Your task to perform on an android device: Find coffee shops on Maps Image 0: 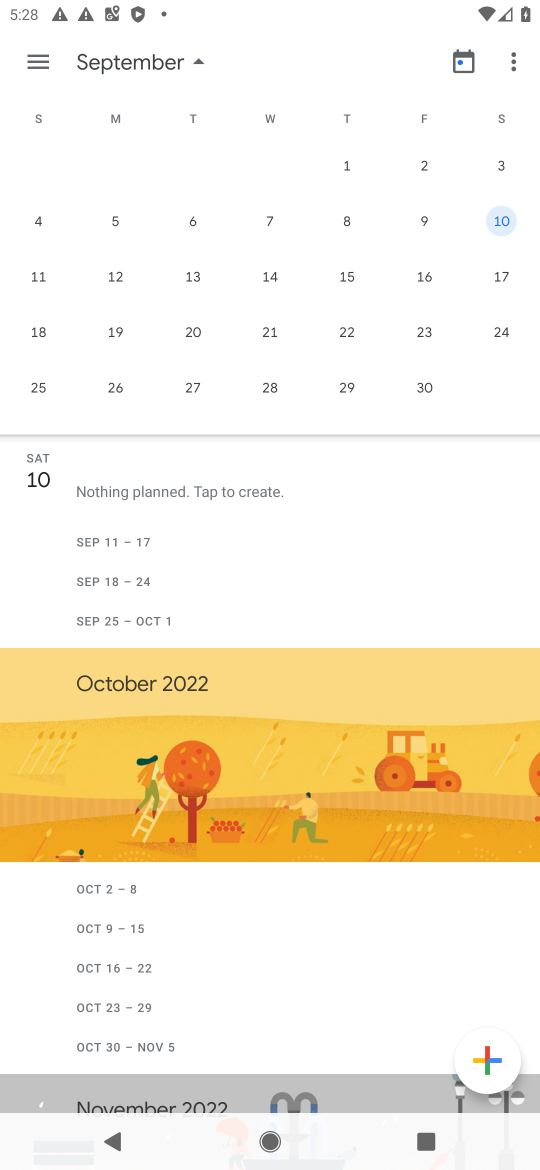
Step 0: press home button
Your task to perform on an android device: Find coffee shops on Maps Image 1: 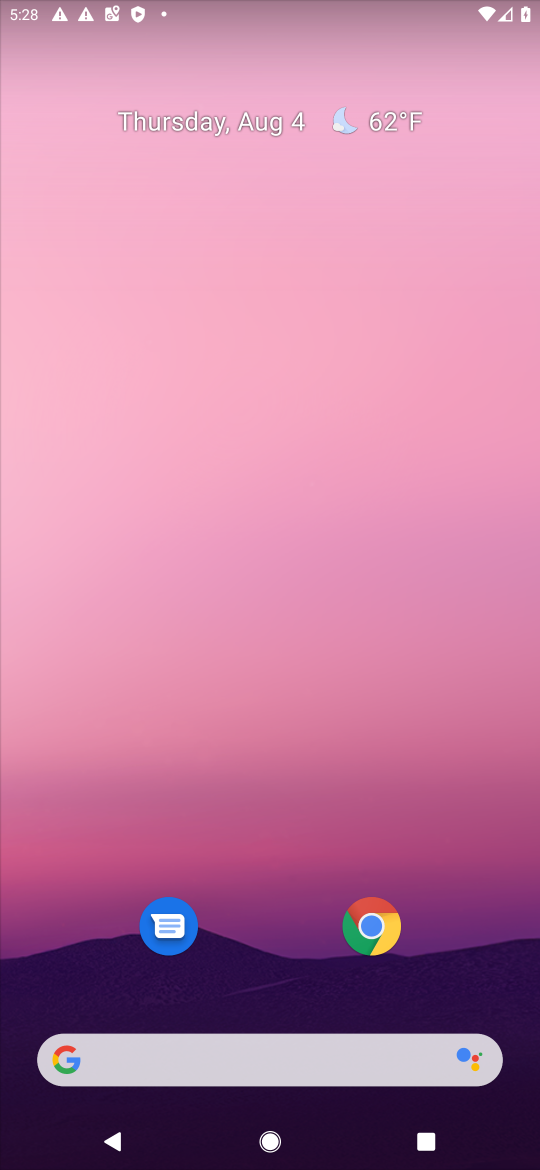
Step 1: drag from (258, 926) to (306, 228)
Your task to perform on an android device: Find coffee shops on Maps Image 2: 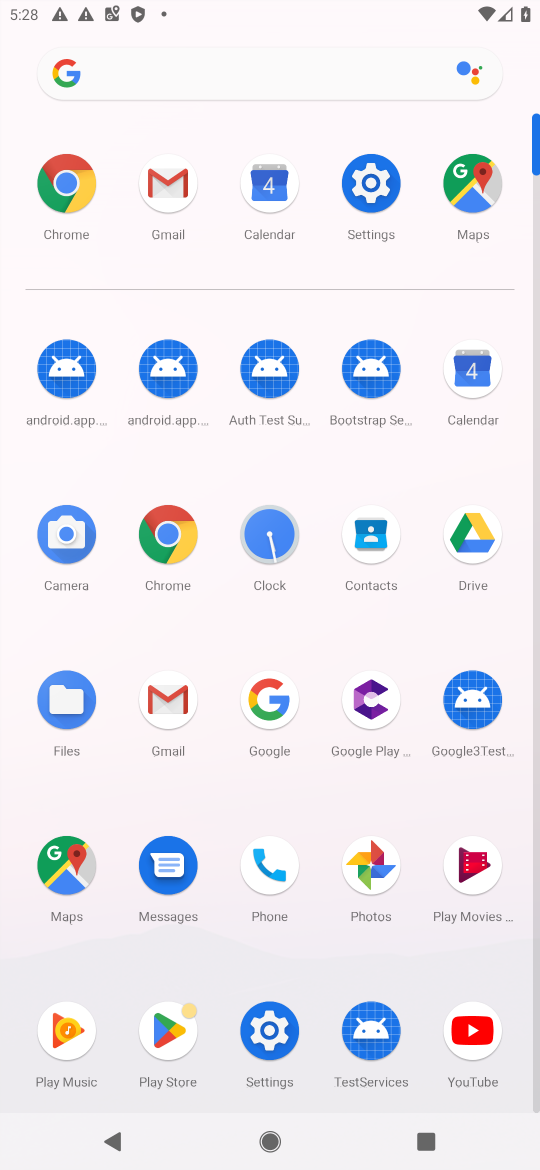
Step 2: click (469, 187)
Your task to perform on an android device: Find coffee shops on Maps Image 3: 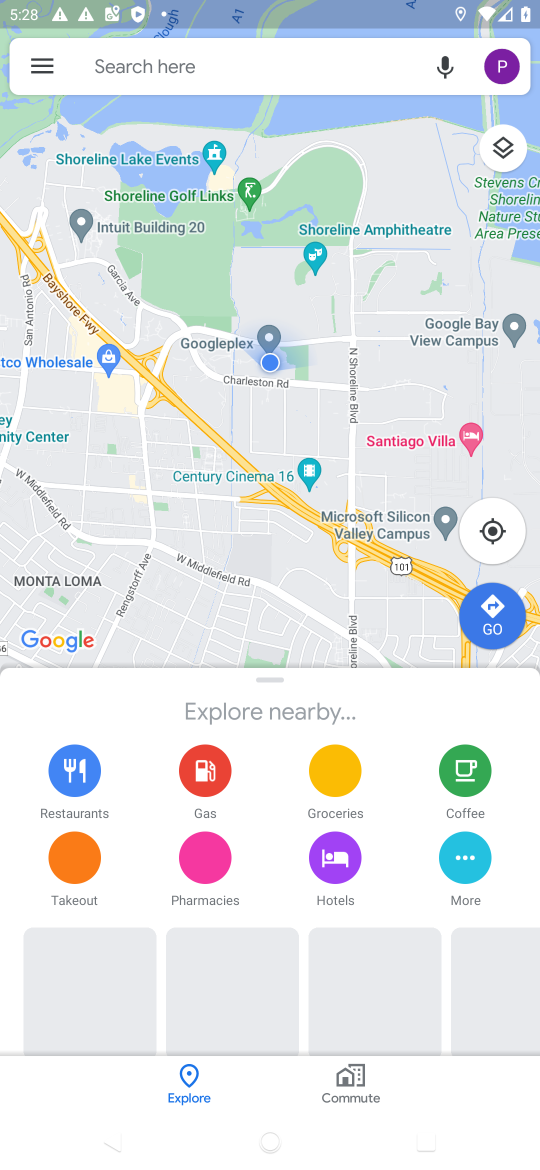
Step 3: click (164, 78)
Your task to perform on an android device: Find coffee shops on Maps Image 4: 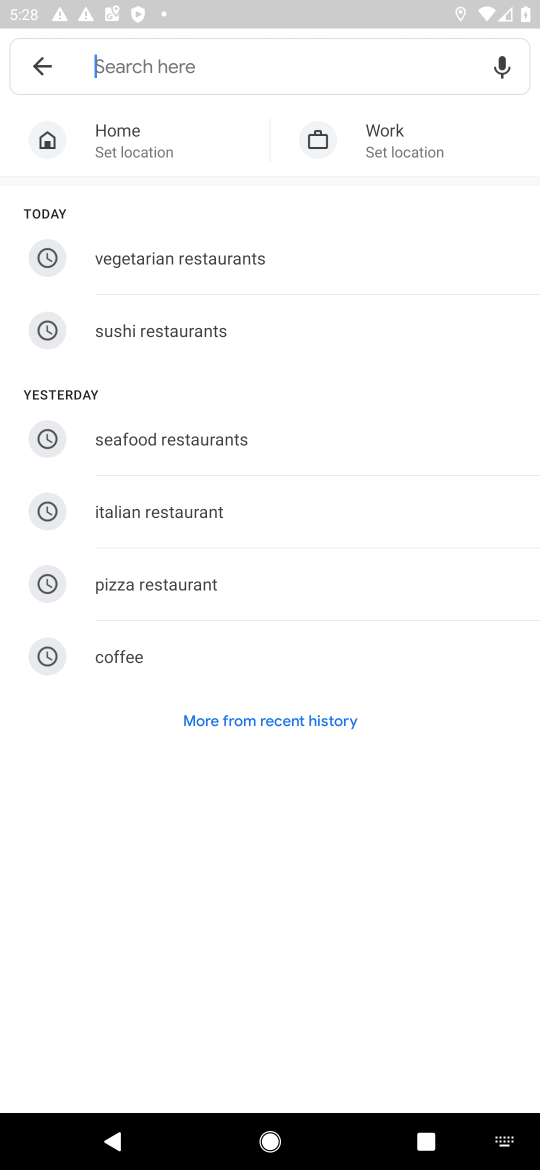
Step 4: type "coffee shops"
Your task to perform on an android device: Find coffee shops on Maps Image 5: 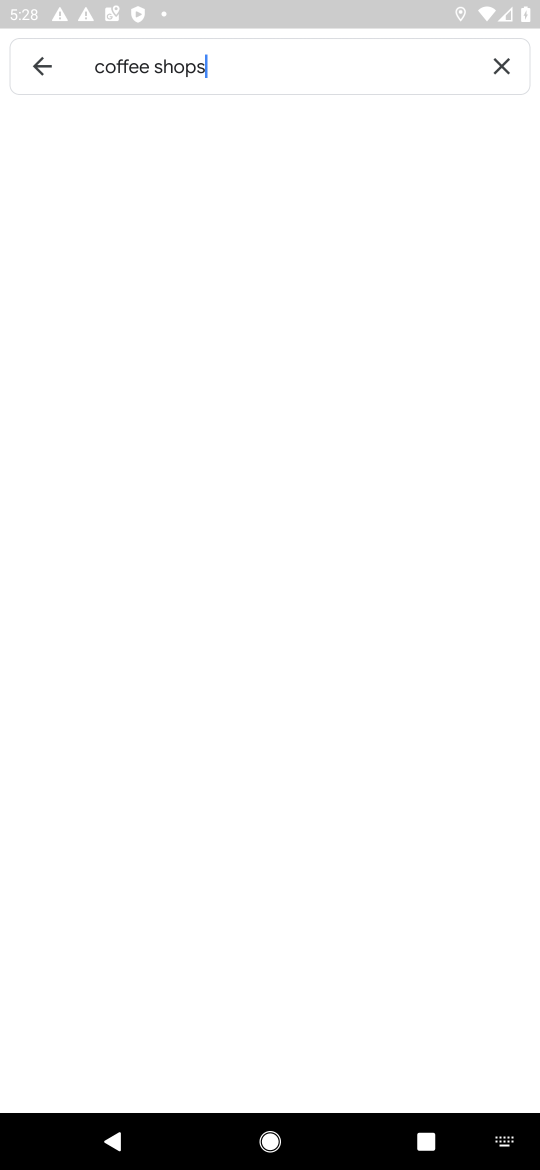
Step 5: press enter
Your task to perform on an android device: Find coffee shops on Maps Image 6: 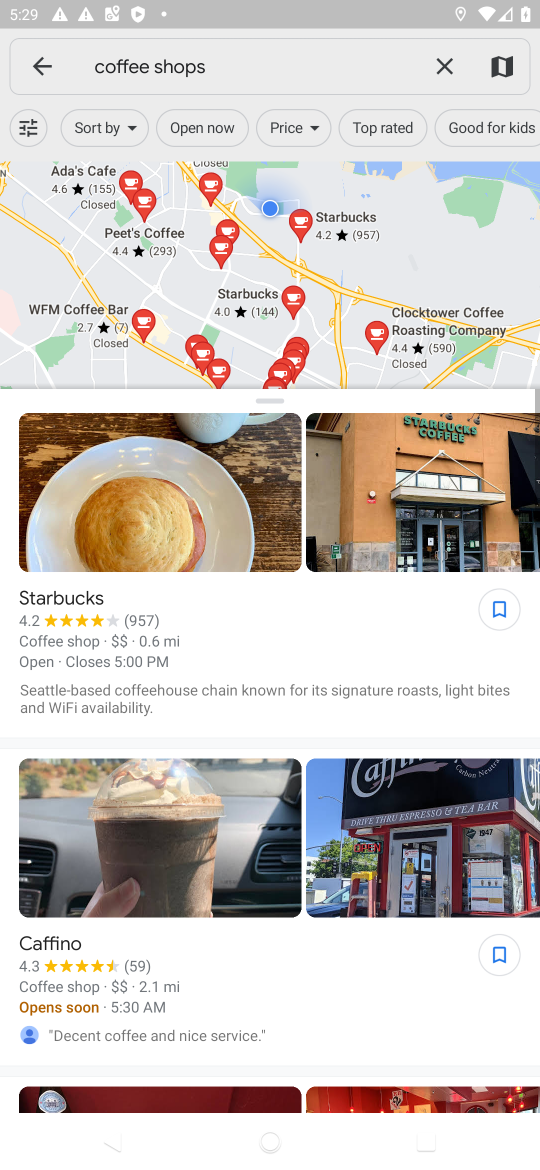
Step 6: task complete